Your task to perform on an android device: add a contact Image 0: 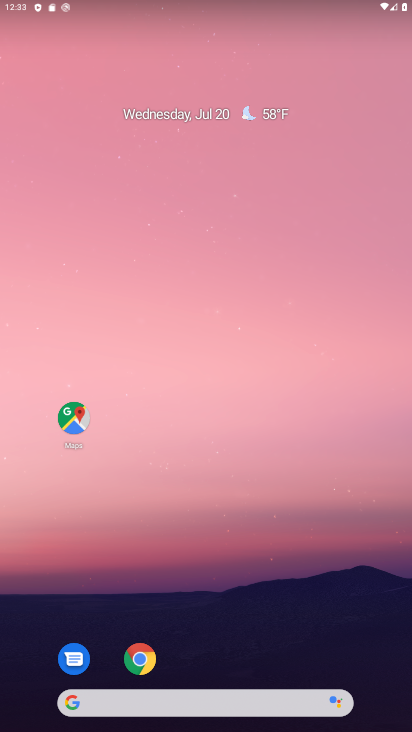
Step 0: press home button
Your task to perform on an android device: add a contact Image 1: 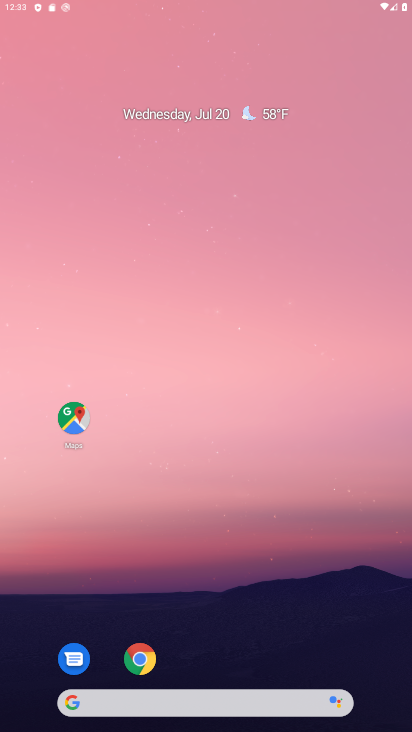
Step 1: drag from (219, 652) to (211, 72)
Your task to perform on an android device: add a contact Image 2: 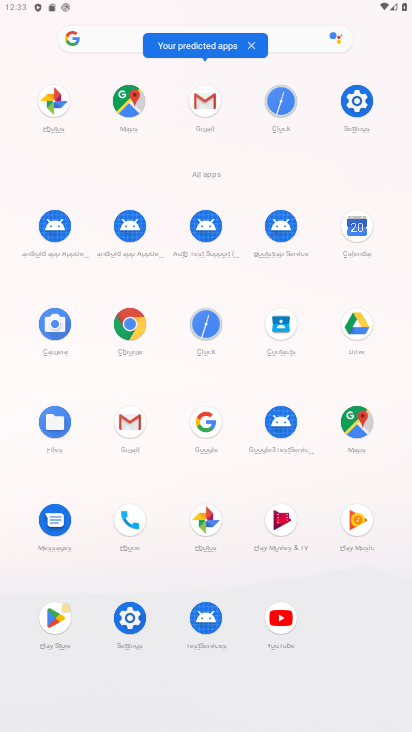
Step 2: click (280, 335)
Your task to perform on an android device: add a contact Image 3: 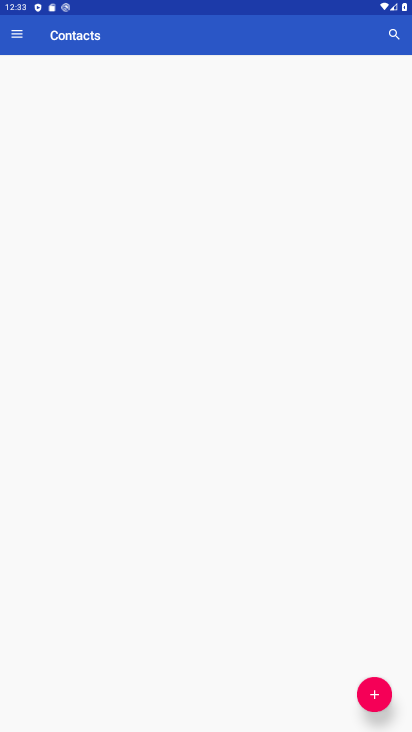
Step 3: click (373, 684)
Your task to perform on an android device: add a contact Image 4: 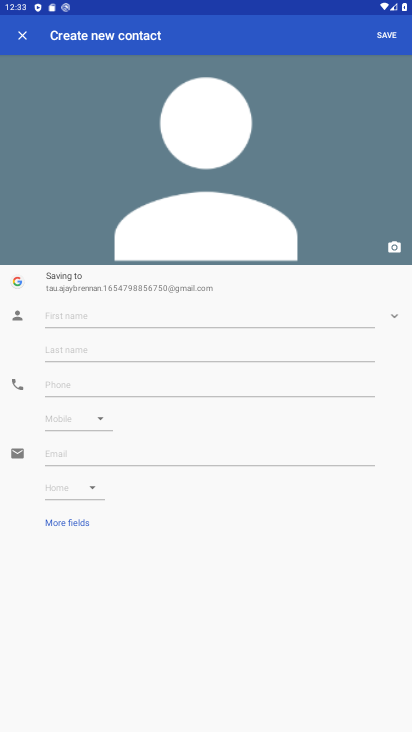
Step 4: click (193, 314)
Your task to perform on an android device: add a contact Image 5: 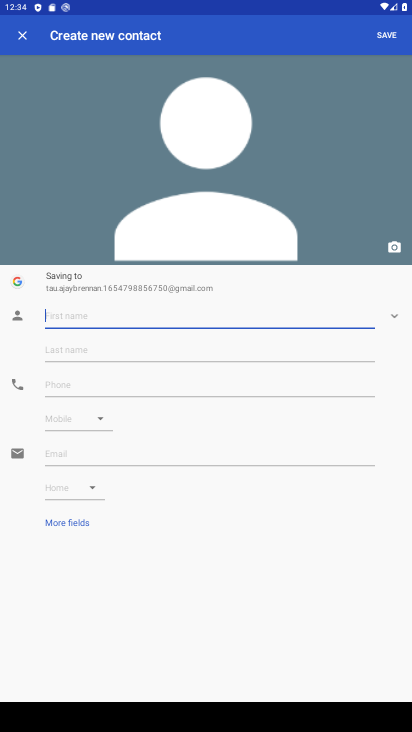
Step 5: type "kasto"
Your task to perform on an android device: add a contact Image 6: 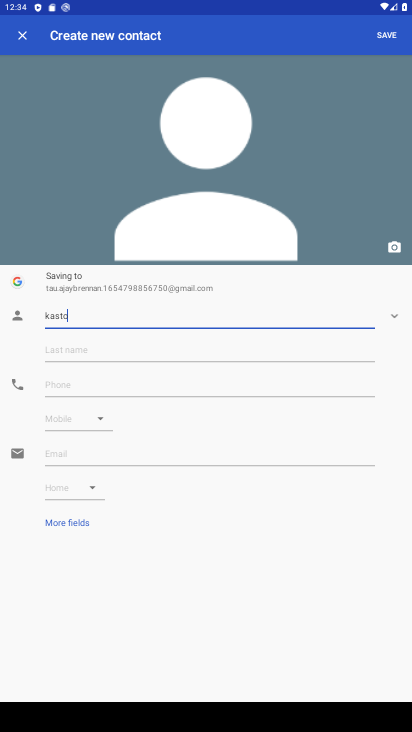
Step 6: click (385, 39)
Your task to perform on an android device: add a contact Image 7: 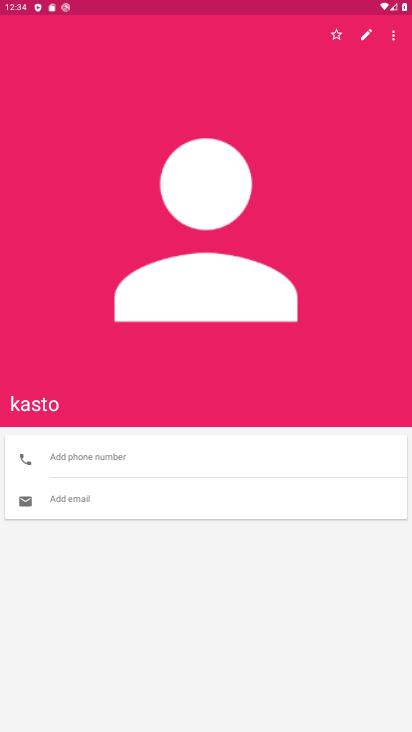
Step 7: task complete